Your task to perform on an android device: Go to Google maps Image 0: 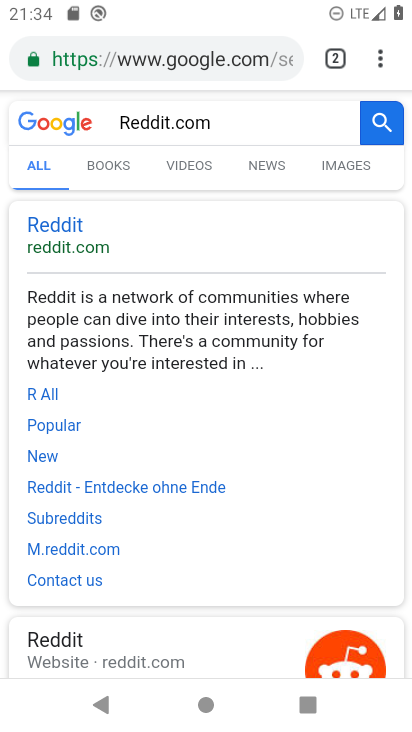
Step 0: press home button
Your task to perform on an android device: Go to Google maps Image 1: 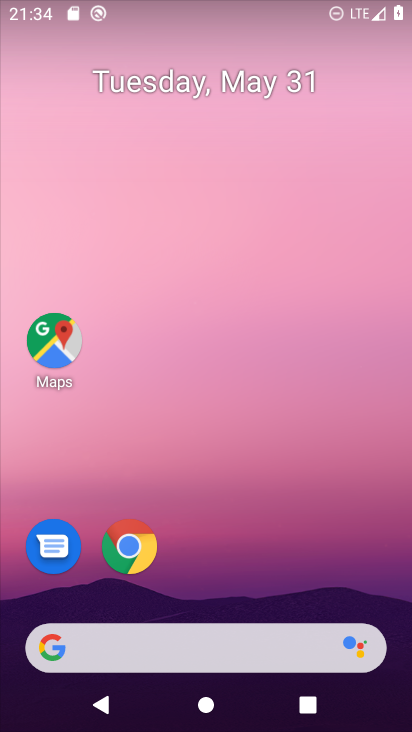
Step 1: click (51, 324)
Your task to perform on an android device: Go to Google maps Image 2: 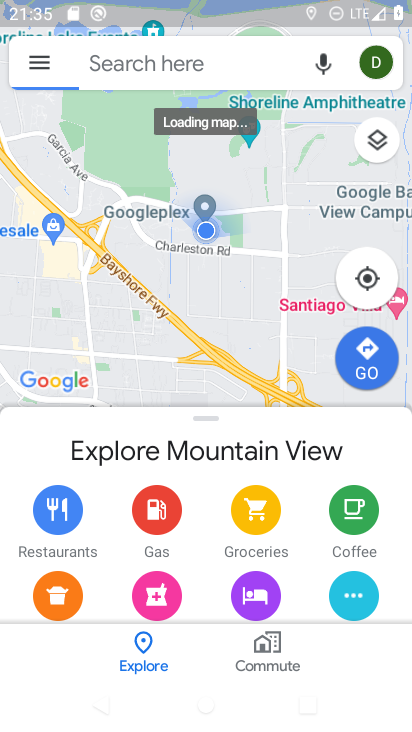
Step 2: task complete